Your task to perform on an android device: choose inbox layout in the gmail app Image 0: 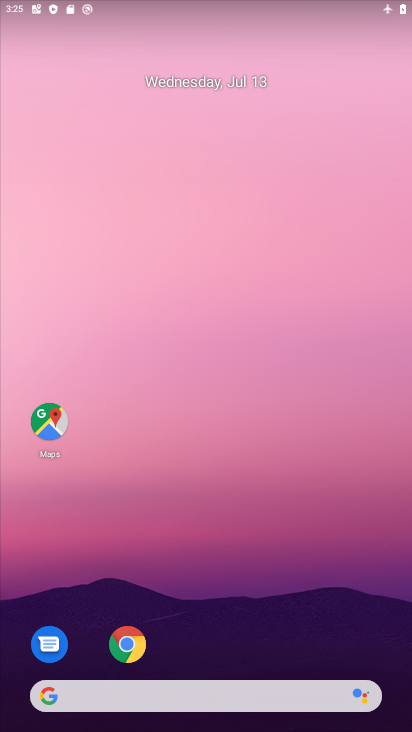
Step 0: drag from (266, 616) to (274, 66)
Your task to perform on an android device: choose inbox layout in the gmail app Image 1: 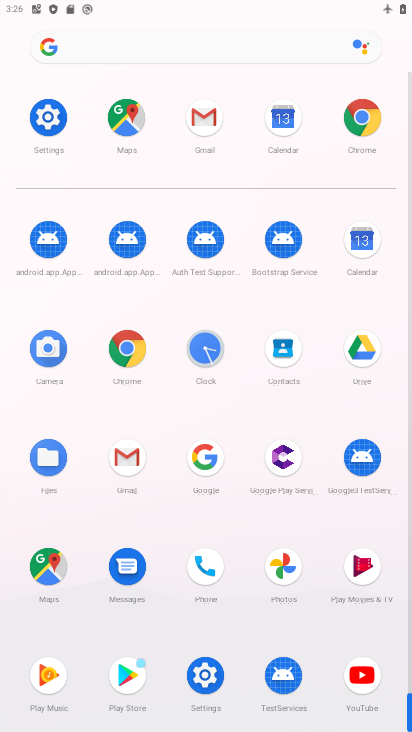
Step 1: click (211, 107)
Your task to perform on an android device: choose inbox layout in the gmail app Image 2: 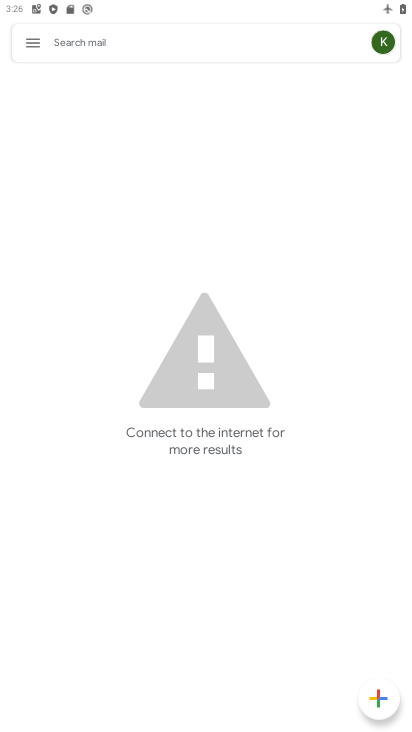
Step 2: click (39, 40)
Your task to perform on an android device: choose inbox layout in the gmail app Image 3: 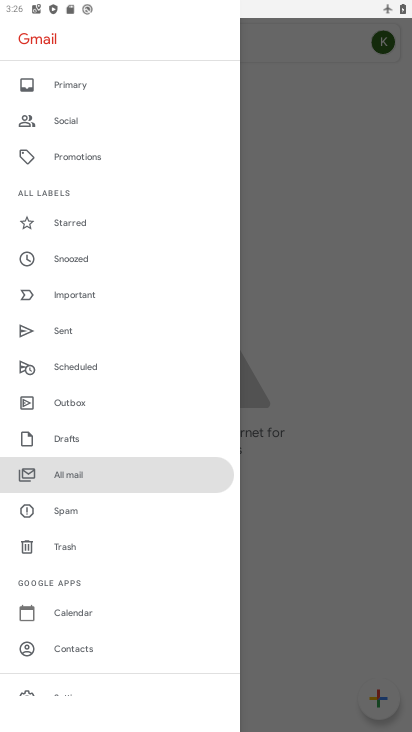
Step 3: drag from (89, 651) to (102, 334)
Your task to perform on an android device: choose inbox layout in the gmail app Image 4: 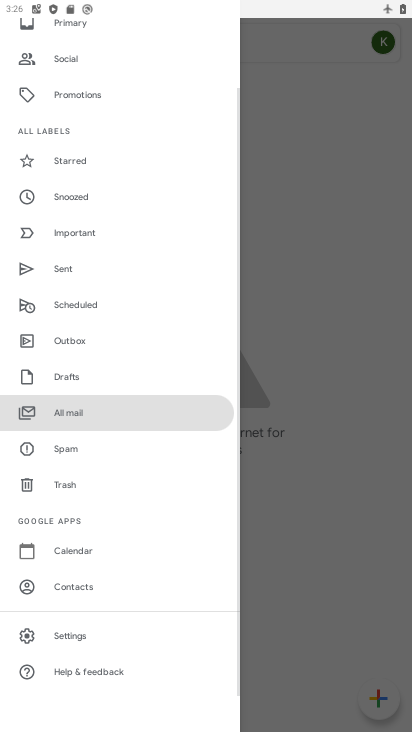
Step 4: click (60, 634)
Your task to perform on an android device: choose inbox layout in the gmail app Image 5: 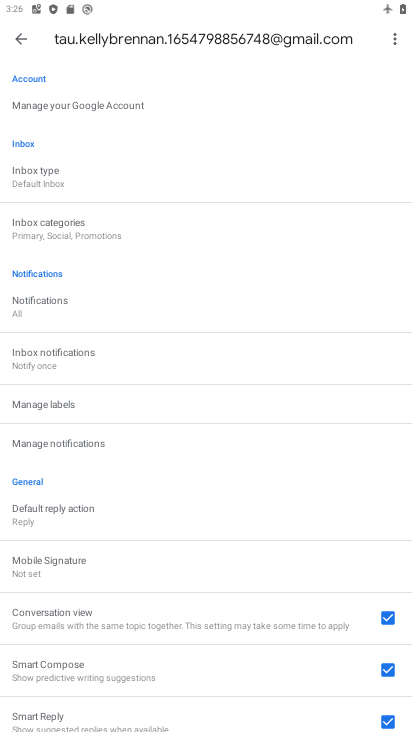
Step 5: click (61, 177)
Your task to perform on an android device: choose inbox layout in the gmail app Image 6: 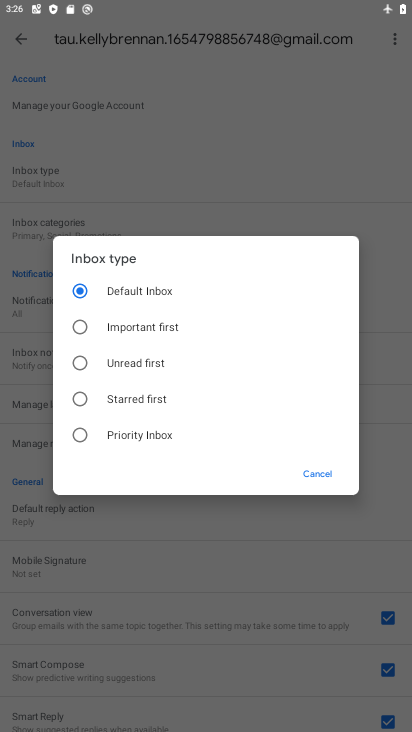
Step 6: task complete